Your task to perform on an android device: Open Google Chrome and click the shortcut for Amazon.com Image 0: 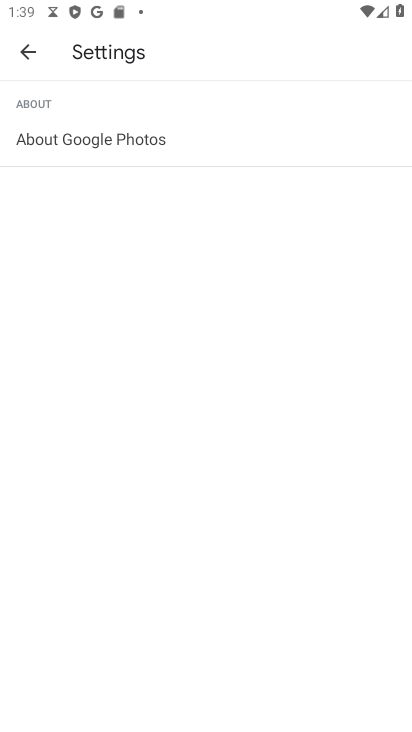
Step 0: press home button
Your task to perform on an android device: Open Google Chrome and click the shortcut for Amazon.com Image 1: 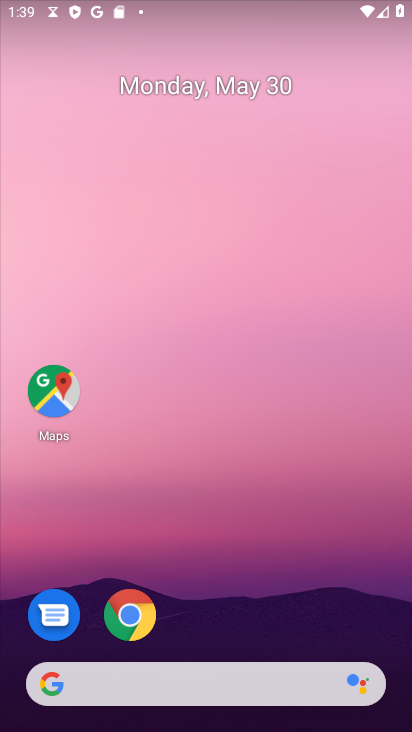
Step 1: drag from (357, 601) to (411, 652)
Your task to perform on an android device: Open Google Chrome and click the shortcut for Amazon.com Image 2: 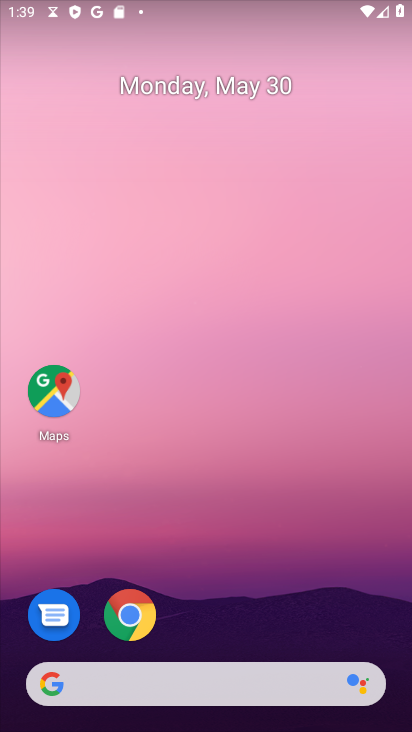
Step 2: click (347, 62)
Your task to perform on an android device: Open Google Chrome and click the shortcut for Amazon.com Image 3: 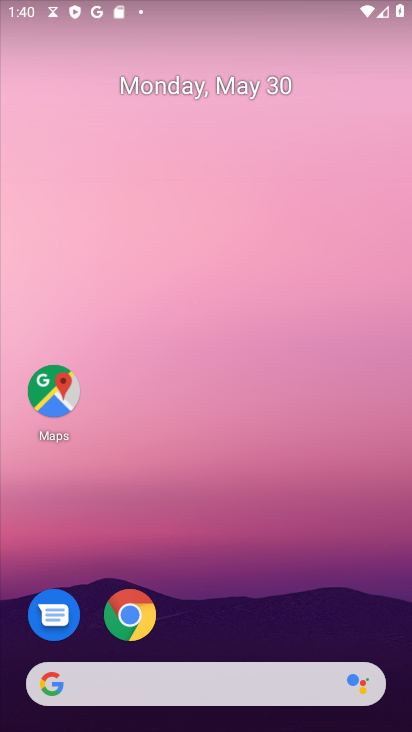
Step 3: drag from (345, 607) to (344, 150)
Your task to perform on an android device: Open Google Chrome and click the shortcut for Amazon.com Image 4: 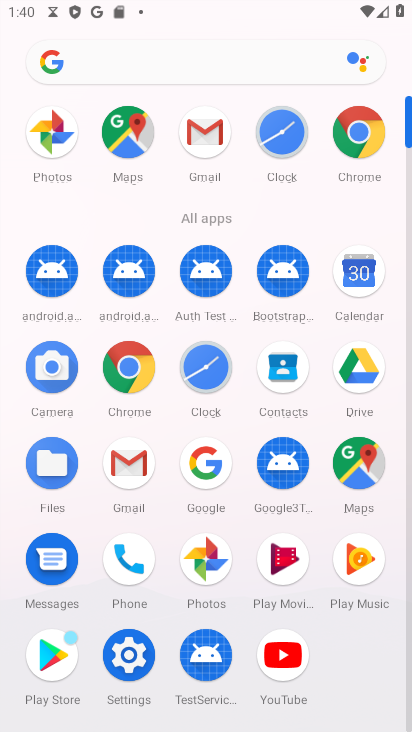
Step 4: click (362, 140)
Your task to perform on an android device: Open Google Chrome and click the shortcut for Amazon.com Image 5: 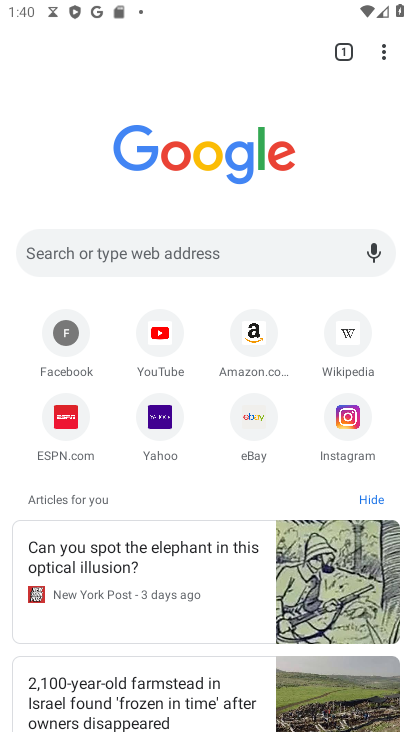
Step 5: click (265, 346)
Your task to perform on an android device: Open Google Chrome and click the shortcut for Amazon.com Image 6: 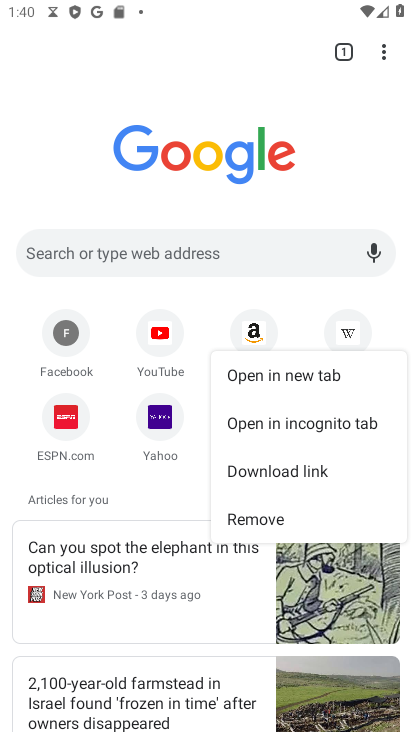
Step 6: click (394, 65)
Your task to perform on an android device: Open Google Chrome and click the shortcut for Amazon.com Image 7: 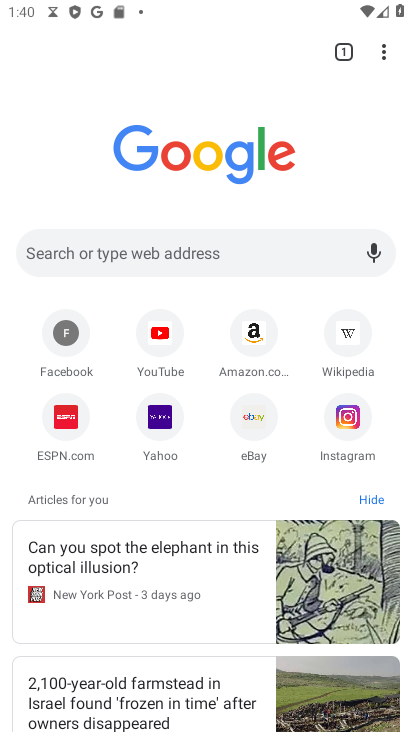
Step 7: click (250, 348)
Your task to perform on an android device: Open Google Chrome and click the shortcut for Amazon.com Image 8: 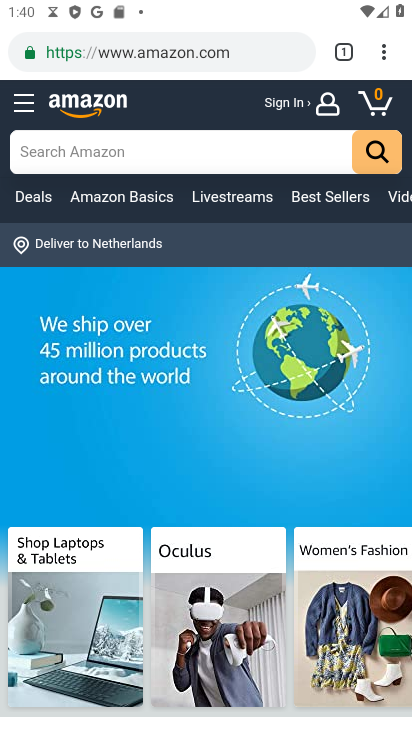
Step 8: drag from (390, 62) to (260, 544)
Your task to perform on an android device: Open Google Chrome and click the shortcut for Amazon.com Image 9: 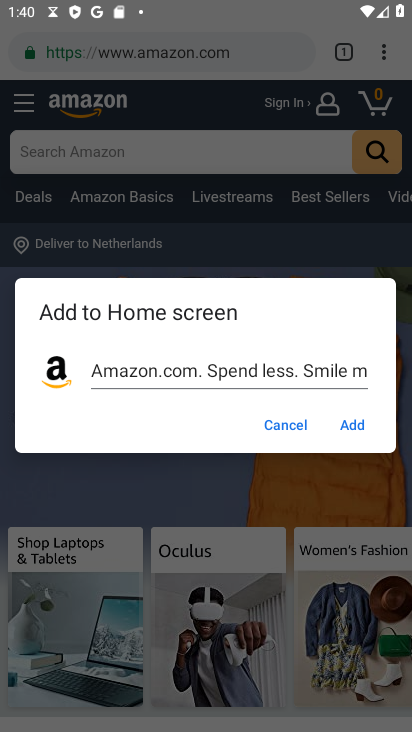
Step 9: click (349, 428)
Your task to perform on an android device: Open Google Chrome and click the shortcut for Amazon.com Image 10: 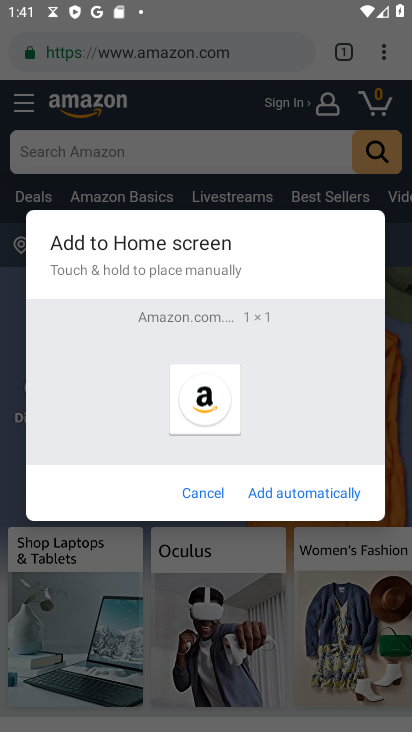
Step 10: click (343, 491)
Your task to perform on an android device: Open Google Chrome and click the shortcut for Amazon.com Image 11: 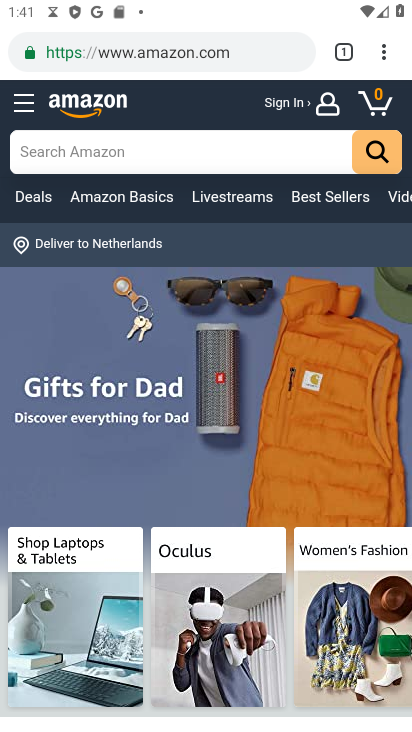
Step 11: task complete